Your task to perform on an android device: open sync settings in chrome Image 0: 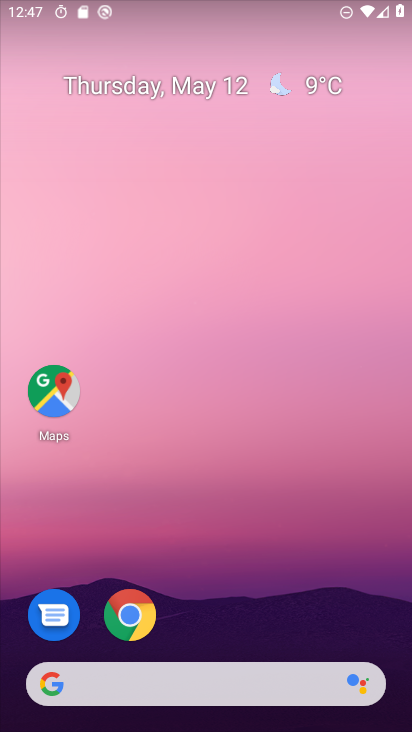
Step 0: click (132, 621)
Your task to perform on an android device: open sync settings in chrome Image 1: 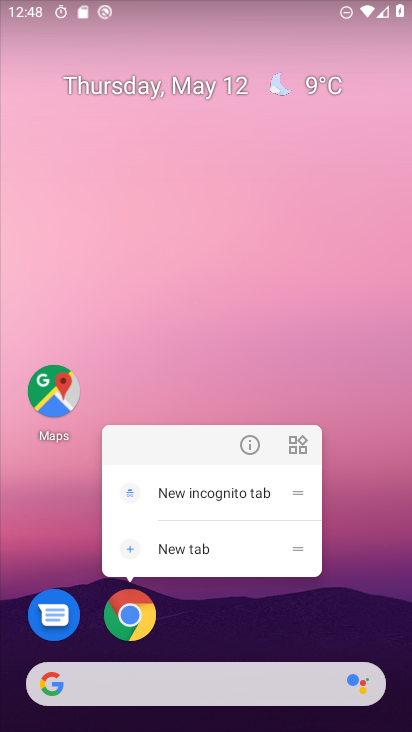
Step 1: click (343, 526)
Your task to perform on an android device: open sync settings in chrome Image 2: 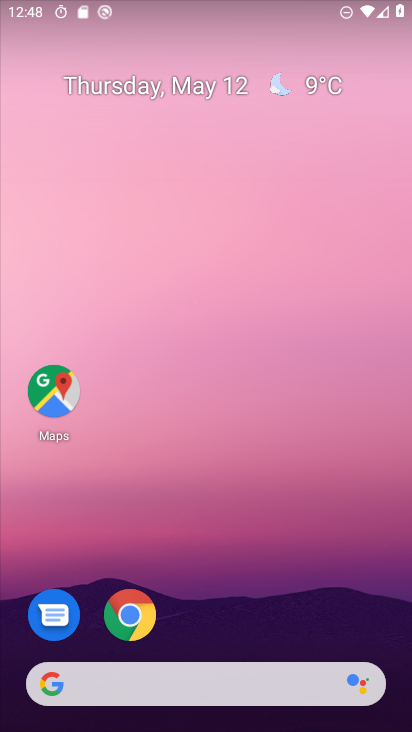
Step 2: click (130, 619)
Your task to perform on an android device: open sync settings in chrome Image 3: 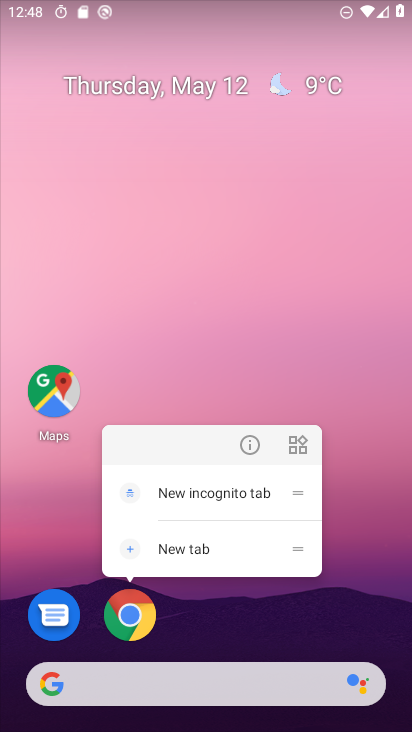
Step 3: drag from (299, 621) to (311, 5)
Your task to perform on an android device: open sync settings in chrome Image 4: 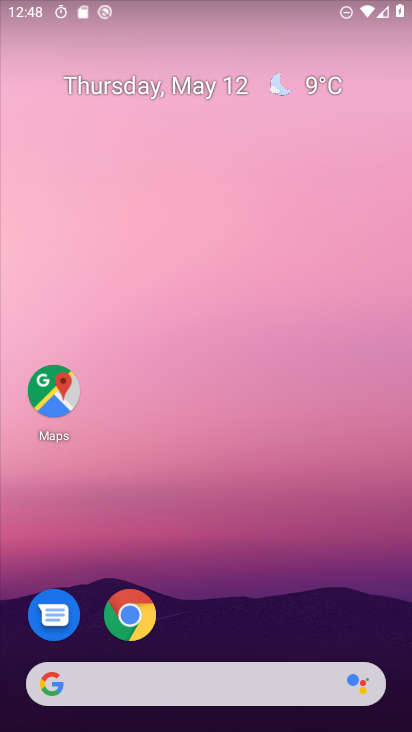
Step 4: drag from (272, 522) to (242, 46)
Your task to perform on an android device: open sync settings in chrome Image 5: 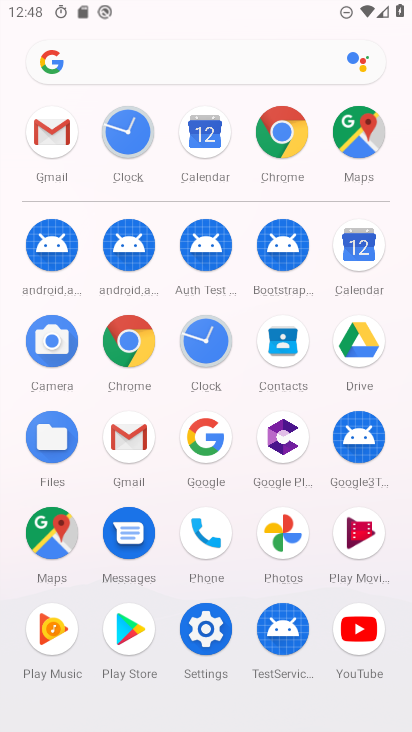
Step 5: click (131, 342)
Your task to perform on an android device: open sync settings in chrome Image 6: 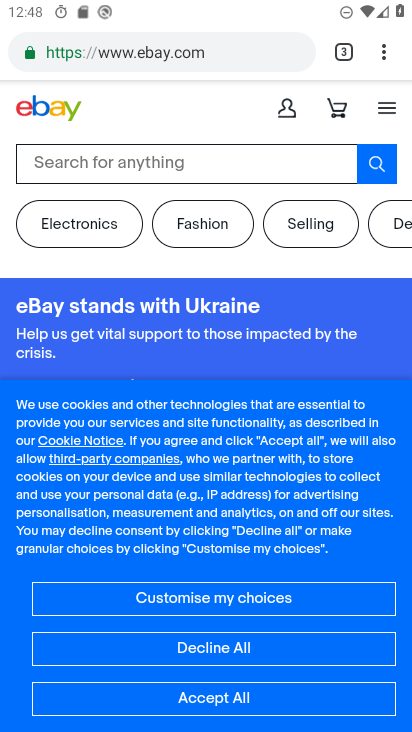
Step 6: drag from (384, 54) to (193, 640)
Your task to perform on an android device: open sync settings in chrome Image 7: 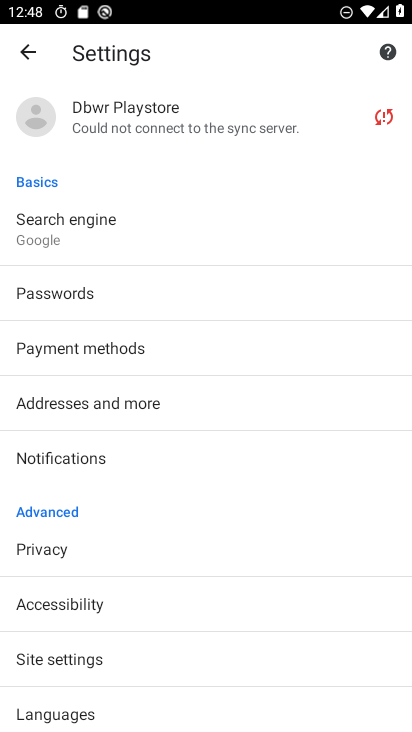
Step 7: drag from (169, 611) to (264, 220)
Your task to perform on an android device: open sync settings in chrome Image 8: 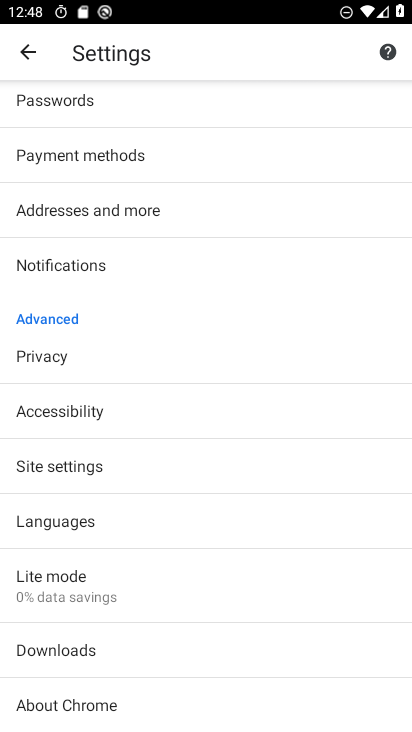
Step 8: drag from (133, 222) to (205, 696)
Your task to perform on an android device: open sync settings in chrome Image 9: 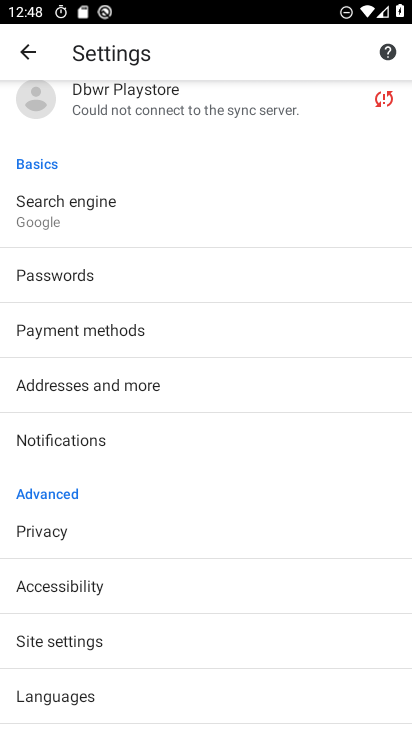
Step 9: click (186, 86)
Your task to perform on an android device: open sync settings in chrome Image 10: 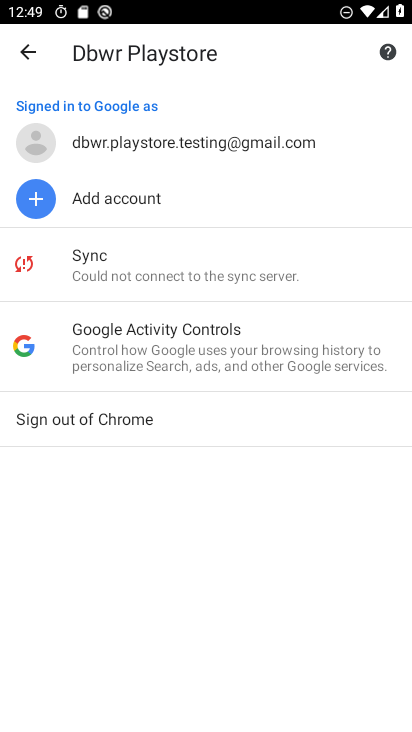
Step 10: click (147, 273)
Your task to perform on an android device: open sync settings in chrome Image 11: 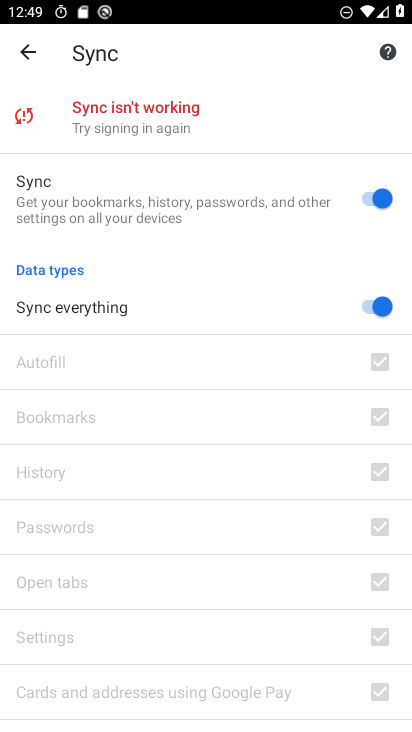
Step 11: task complete